Your task to perform on an android device: delete browsing data in the chrome app Image 0: 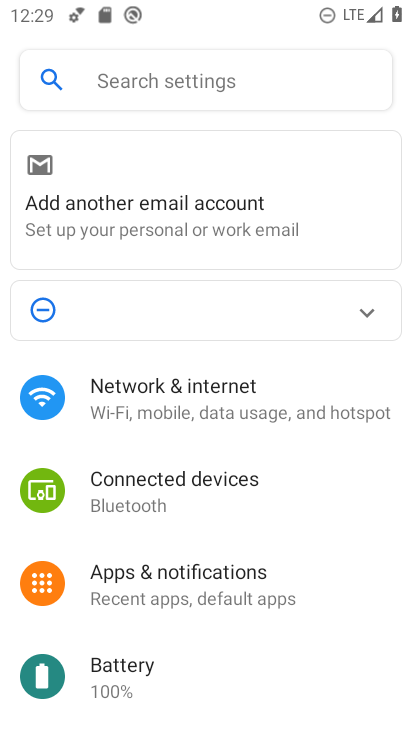
Step 0: press home button
Your task to perform on an android device: delete browsing data in the chrome app Image 1: 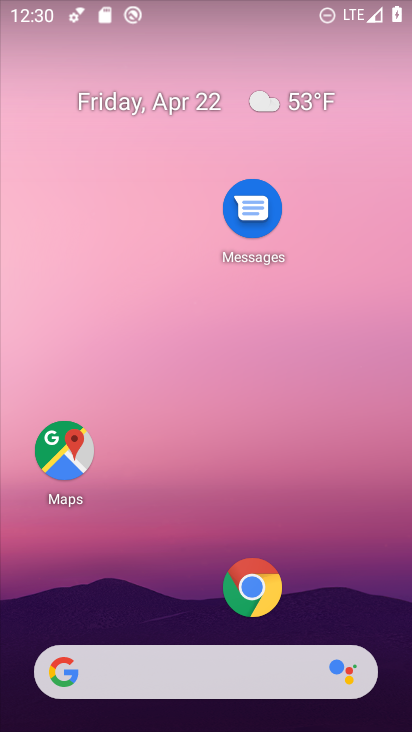
Step 1: drag from (171, 613) to (173, 150)
Your task to perform on an android device: delete browsing data in the chrome app Image 2: 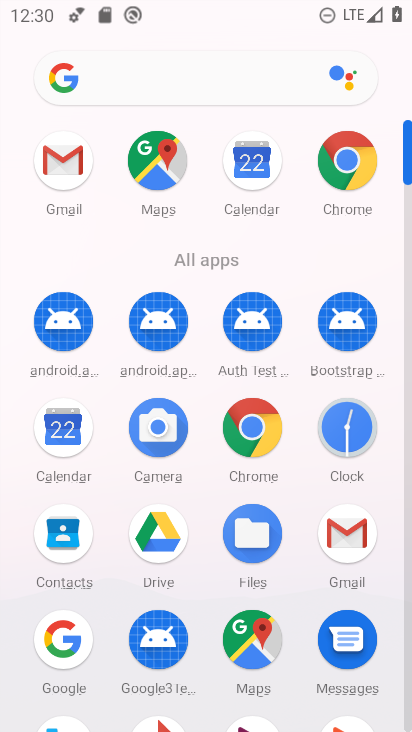
Step 2: click (344, 167)
Your task to perform on an android device: delete browsing data in the chrome app Image 3: 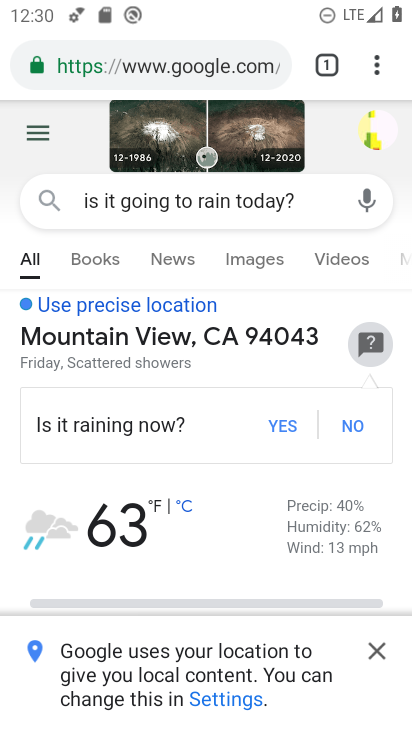
Step 3: click (383, 71)
Your task to perform on an android device: delete browsing data in the chrome app Image 4: 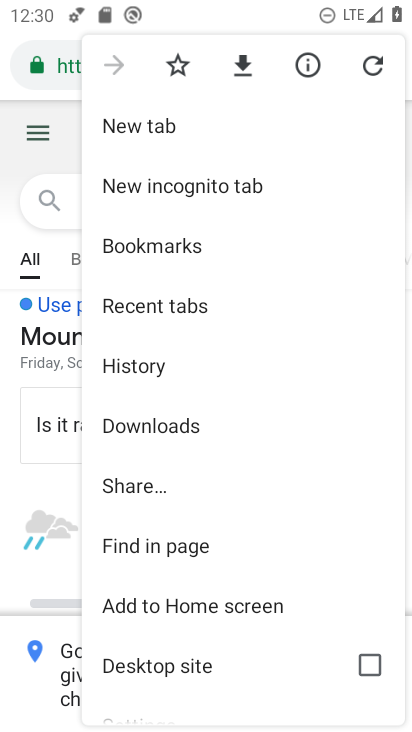
Step 4: drag from (182, 555) to (177, 304)
Your task to perform on an android device: delete browsing data in the chrome app Image 5: 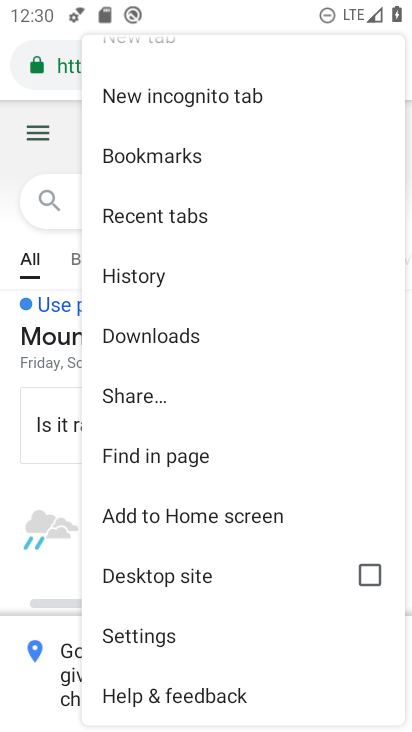
Step 5: click (146, 276)
Your task to perform on an android device: delete browsing data in the chrome app Image 6: 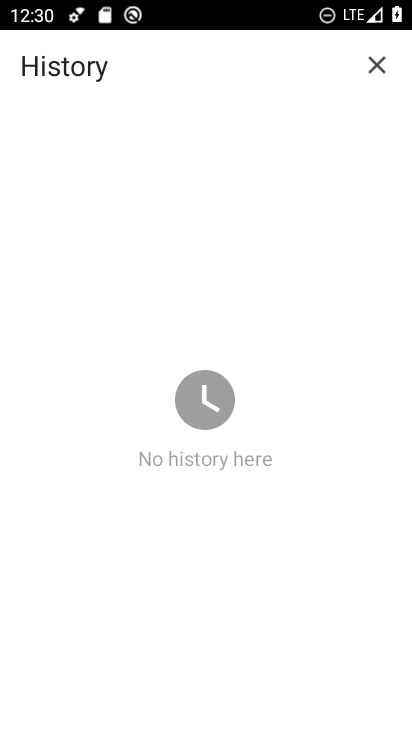
Step 6: task complete